Your task to perform on an android device: add a contact in the contacts app Image 0: 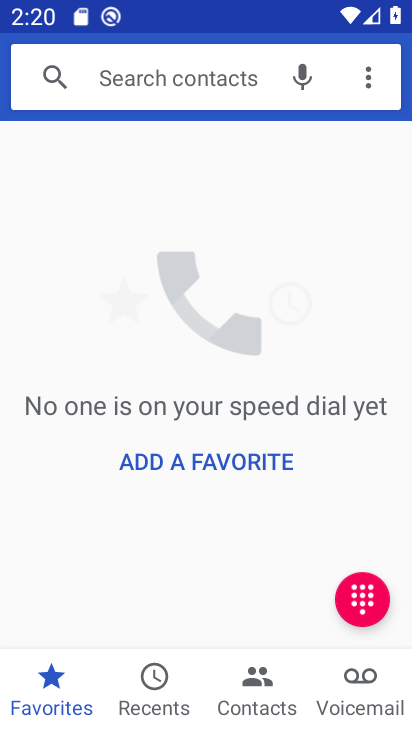
Step 0: press home button
Your task to perform on an android device: add a contact in the contacts app Image 1: 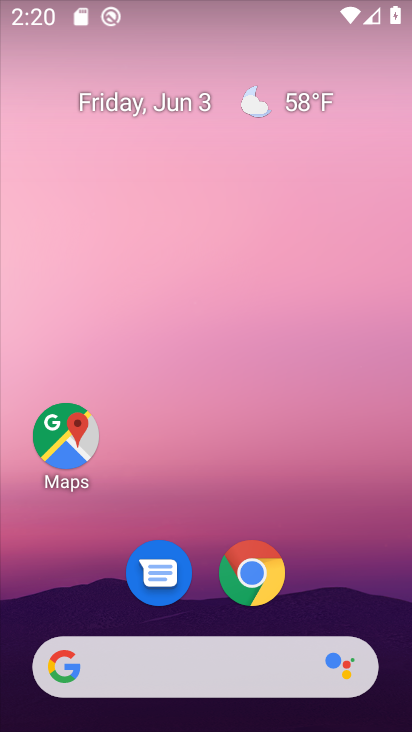
Step 1: drag from (278, 638) to (309, 7)
Your task to perform on an android device: add a contact in the contacts app Image 2: 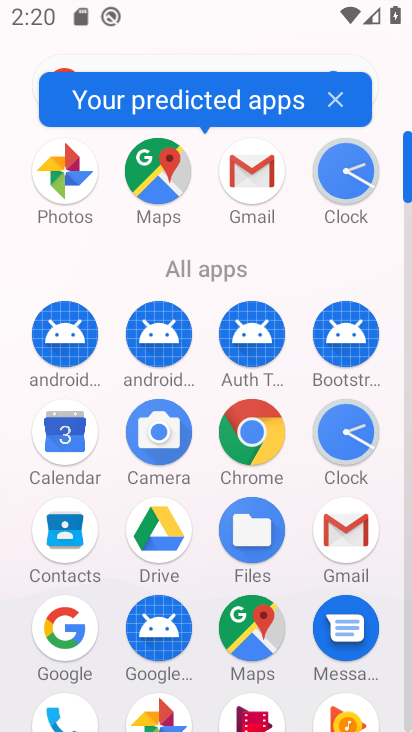
Step 2: click (55, 542)
Your task to perform on an android device: add a contact in the contacts app Image 3: 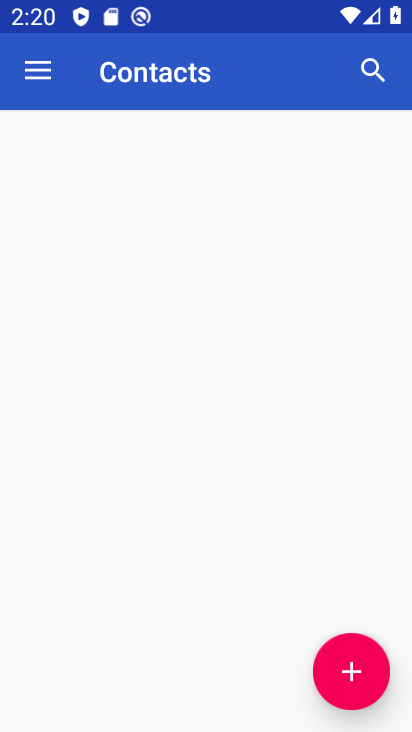
Step 3: click (342, 675)
Your task to perform on an android device: add a contact in the contacts app Image 4: 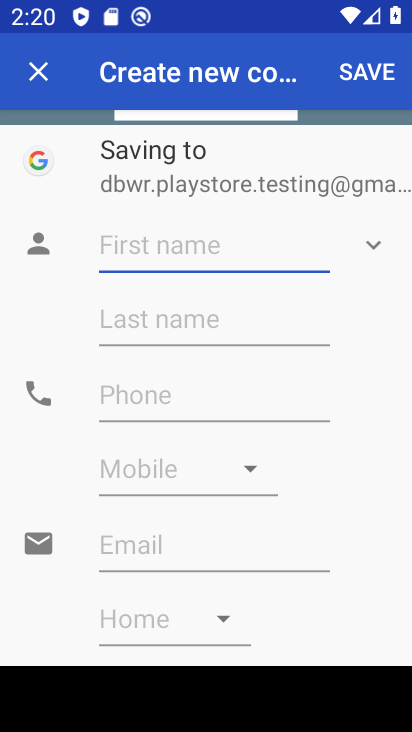
Step 4: type "hjhhfgkg"
Your task to perform on an android device: add a contact in the contacts app Image 5: 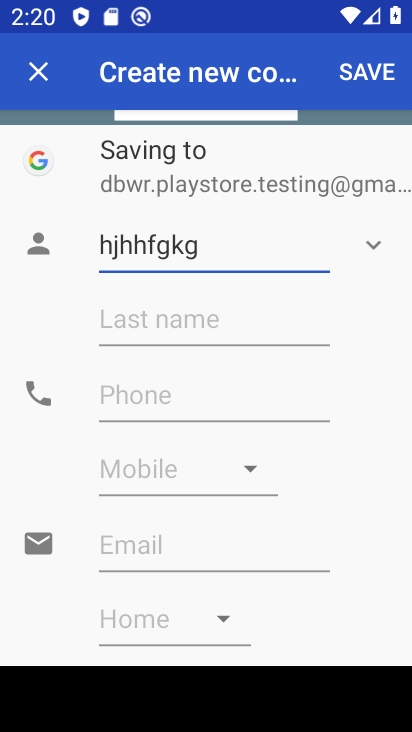
Step 5: click (140, 397)
Your task to perform on an android device: add a contact in the contacts app Image 6: 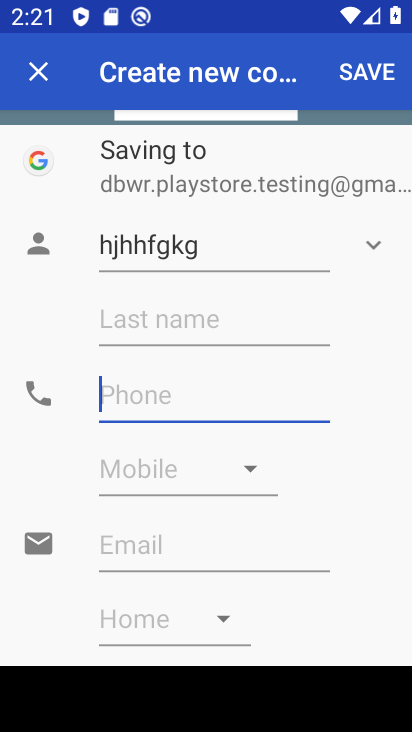
Step 6: type "87766788987"
Your task to perform on an android device: add a contact in the contacts app Image 7: 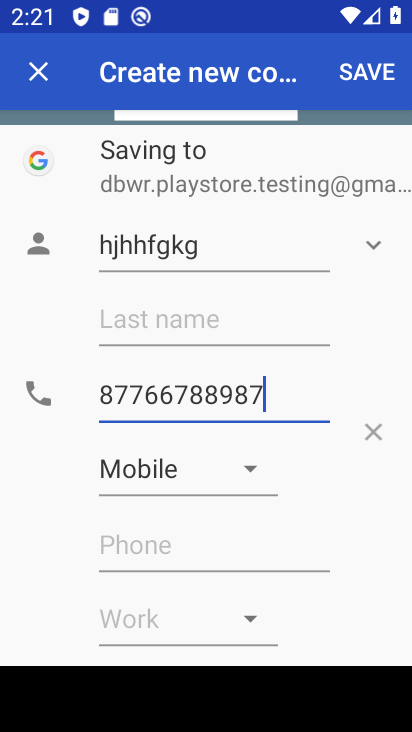
Step 7: click (366, 71)
Your task to perform on an android device: add a contact in the contacts app Image 8: 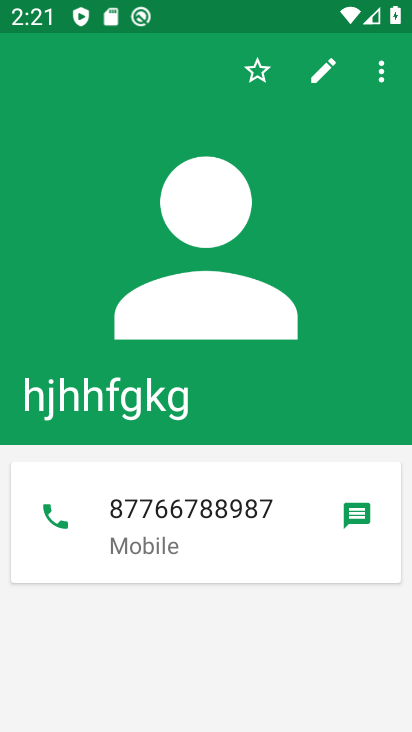
Step 8: task complete